Your task to perform on an android device: open chrome privacy settings Image 0: 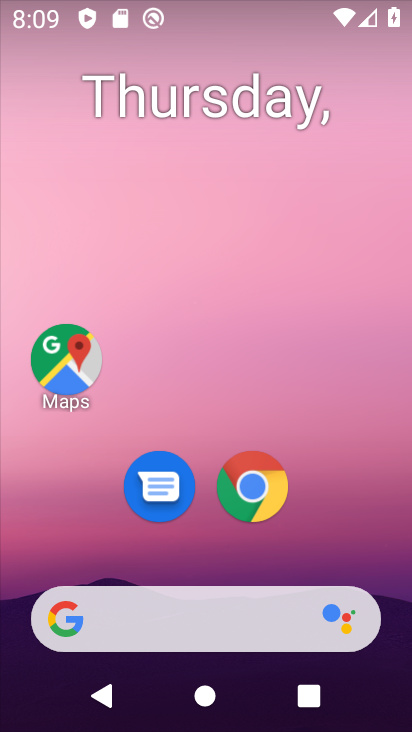
Step 0: drag from (235, 579) to (213, 23)
Your task to perform on an android device: open chrome privacy settings Image 1: 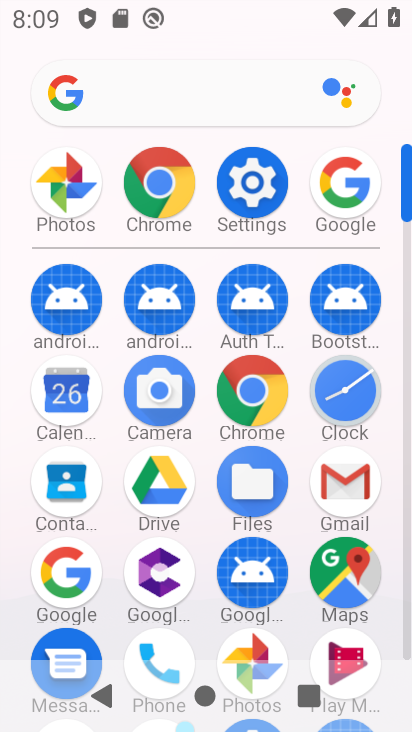
Step 1: click (267, 201)
Your task to perform on an android device: open chrome privacy settings Image 2: 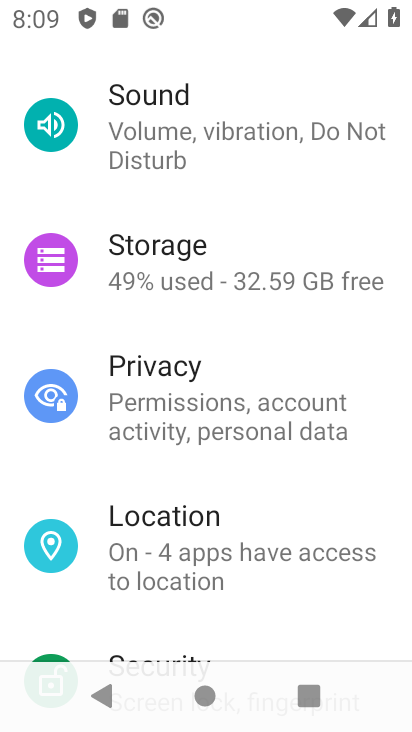
Step 2: click (199, 359)
Your task to perform on an android device: open chrome privacy settings Image 3: 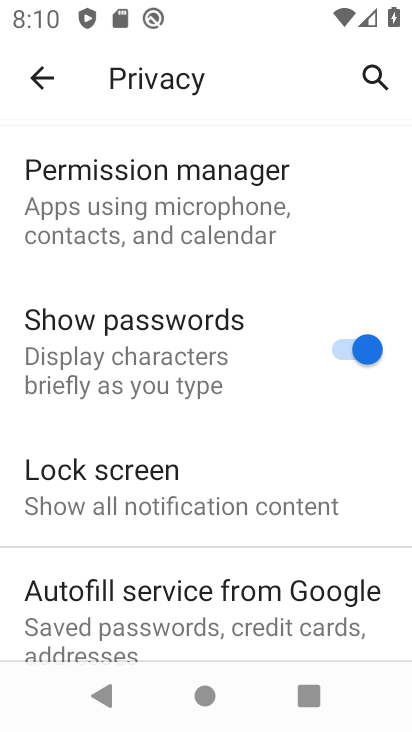
Step 3: click (267, 486)
Your task to perform on an android device: open chrome privacy settings Image 4: 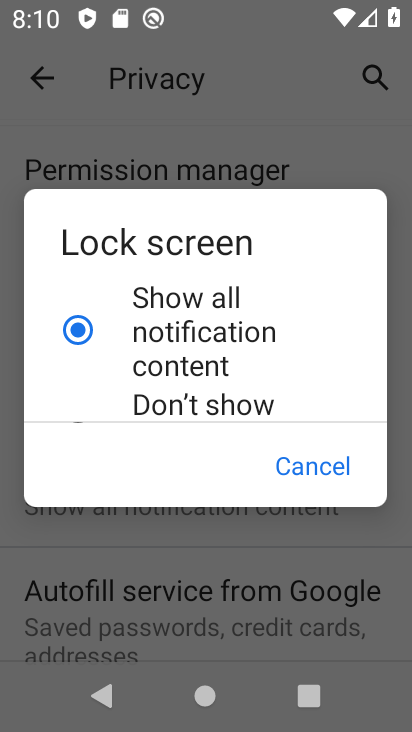
Step 4: task complete